Your task to perform on an android device: Go to sound settings Image 0: 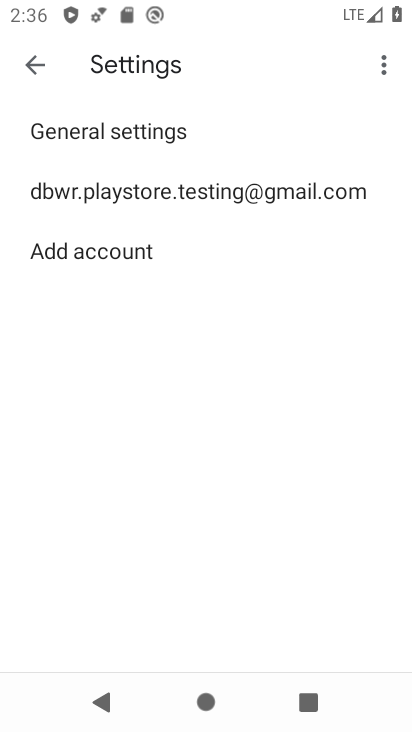
Step 0: press home button
Your task to perform on an android device: Go to sound settings Image 1: 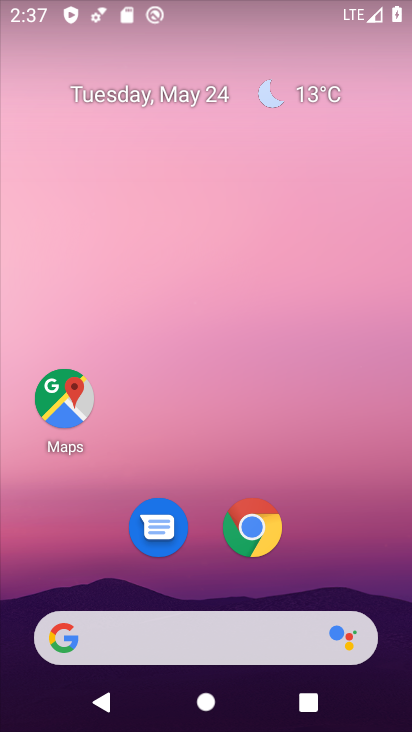
Step 1: drag from (215, 573) to (247, 89)
Your task to perform on an android device: Go to sound settings Image 2: 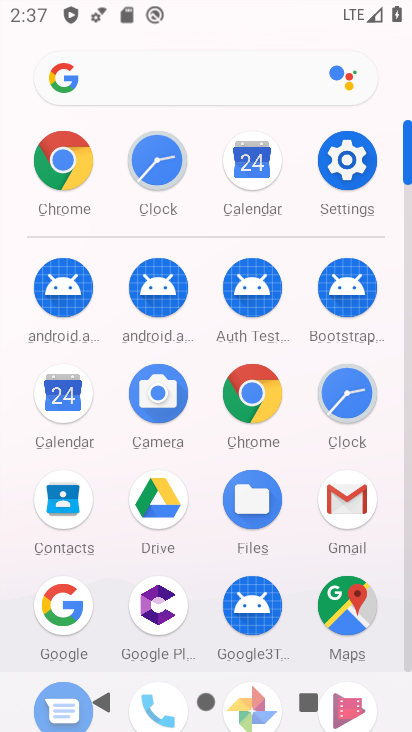
Step 2: click (337, 163)
Your task to perform on an android device: Go to sound settings Image 3: 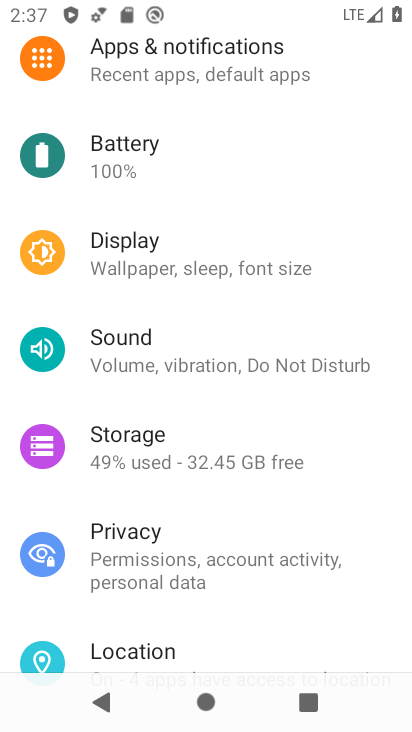
Step 3: click (166, 352)
Your task to perform on an android device: Go to sound settings Image 4: 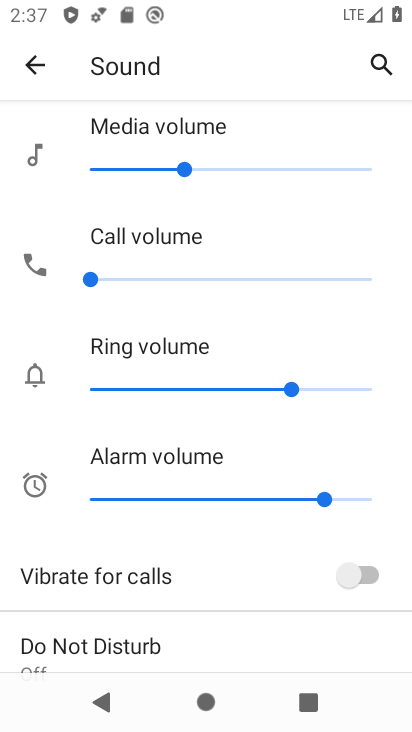
Step 4: task complete